Your task to perform on an android device: open wifi settings Image 0: 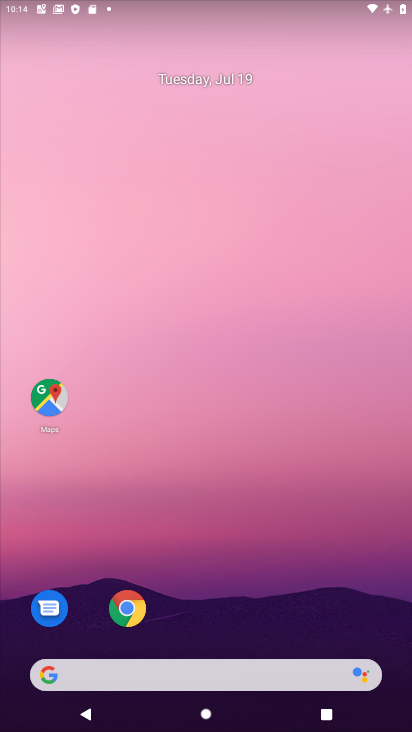
Step 0: drag from (318, 606) to (281, 89)
Your task to perform on an android device: open wifi settings Image 1: 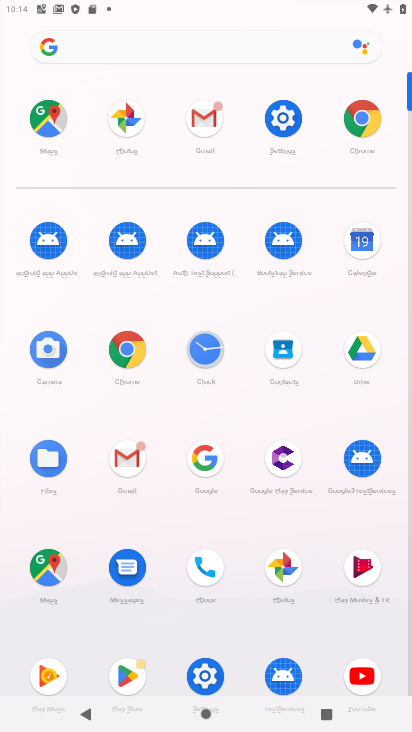
Step 1: click (294, 115)
Your task to perform on an android device: open wifi settings Image 2: 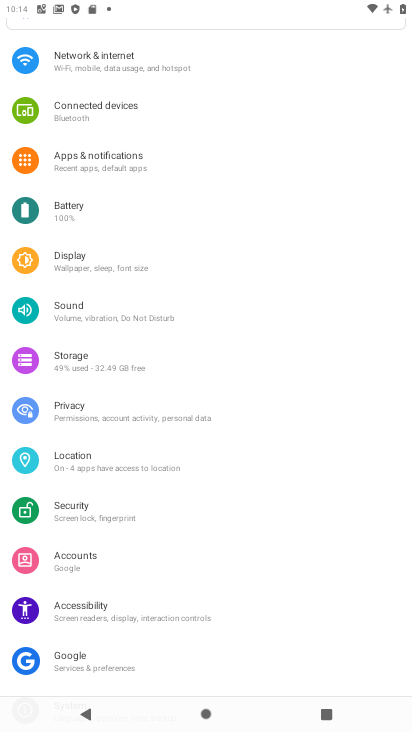
Step 2: click (143, 66)
Your task to perform on an android device: open wifi settings Image 3: 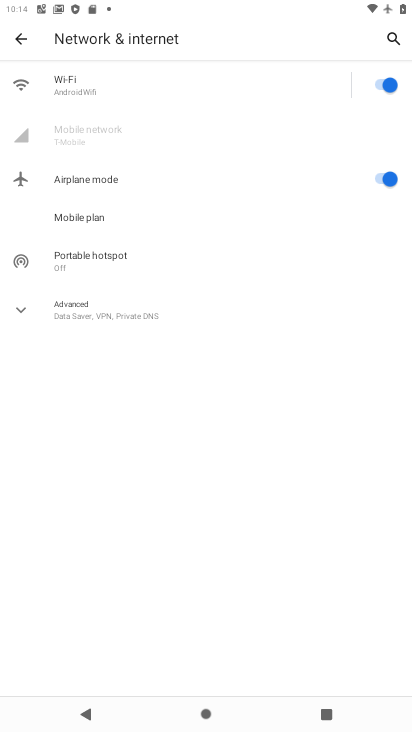
Step 3: click (143, 66)
Your task to perform on an android device: open wifi settings Image 4: 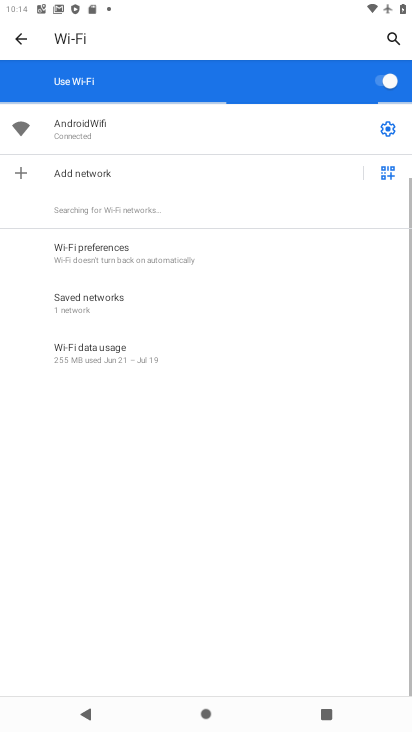
Step 4: click (391, 127)
Your task to perform on an android device: open wifi settings Image 5: 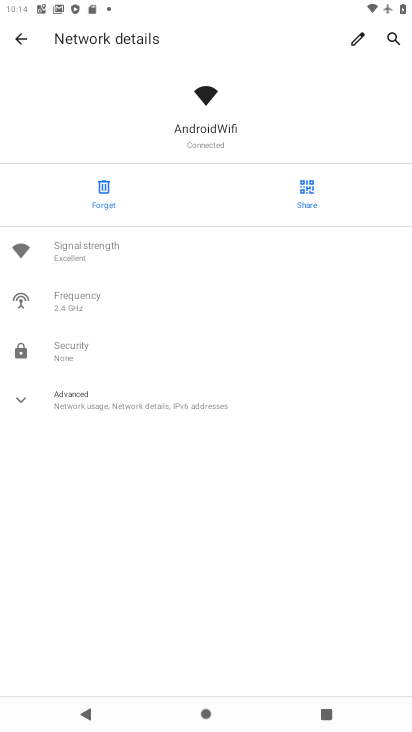
Step 5: task complete